Your task to perform on an android device: stop showing notifications on the lock screen Image 0: 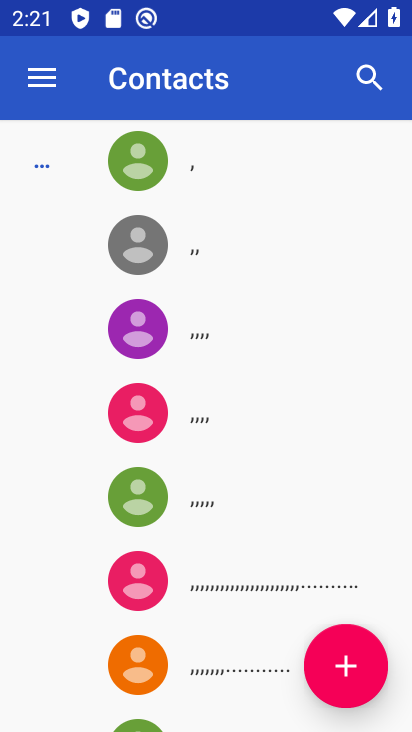
Step 0: press home button
Your task to perform on an android device: stop showing notifications on the lock screen Image 1: 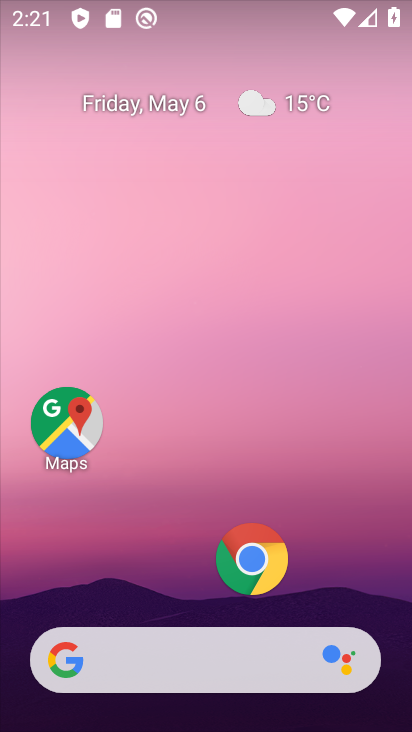
Step 1: drag from (191, 584) to (255, 10)
Your task to perform on an android device: stop showing notifications on the lock screen Image 2: 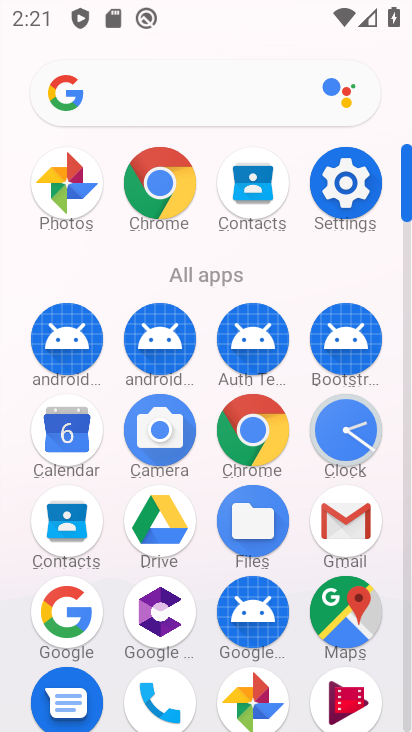
Step 2: click (338, 181)
Your task to perform on an android device: stop showing notifications on the lock screen Image 3: 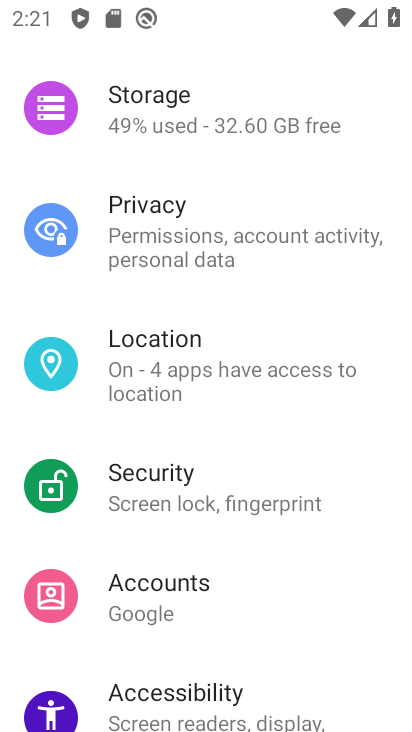
Step 3: drag from (197, 104) to (225, 667)
Your task to perform on an android device: stop showing notifications on the lock screen Image 4: 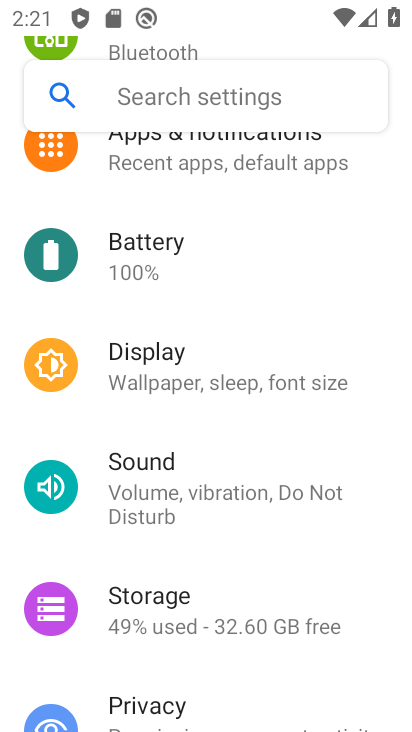
Step 4: click (207, 152)
Your task to perform on an android device: stop showing notifications on the lock screen Image 5: 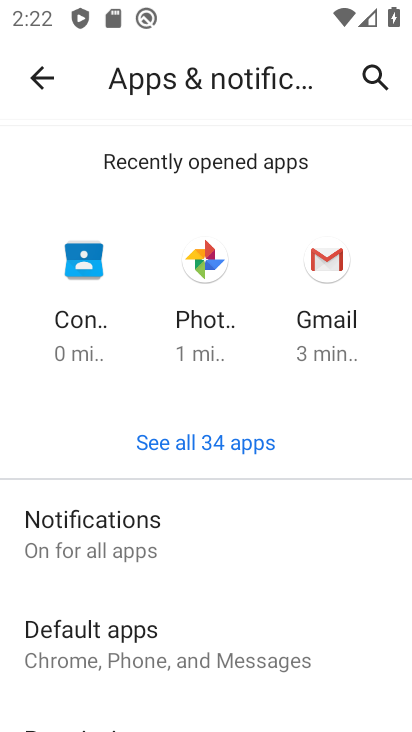
Step 5: click (159, 538)
Your task to perform on an android device: stop showing notifications on the lock screen Image 6: 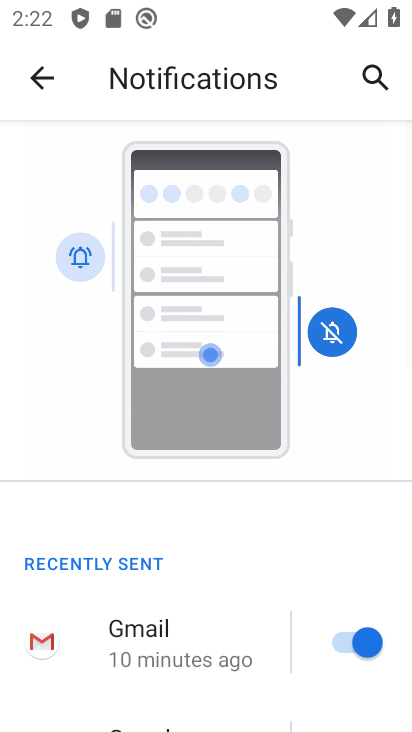
Step 6: drag from (250, 624) to (320, 150)
Your task to perform on an android device: stop showing notifications on the lock screen Image 7: 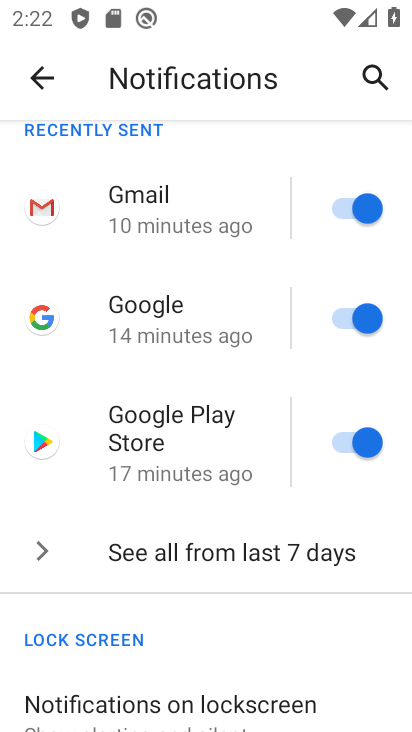
Step 7: click (195, 695)
Your task to perform on an android device: stop showing notifications on the lock screen Image 8: 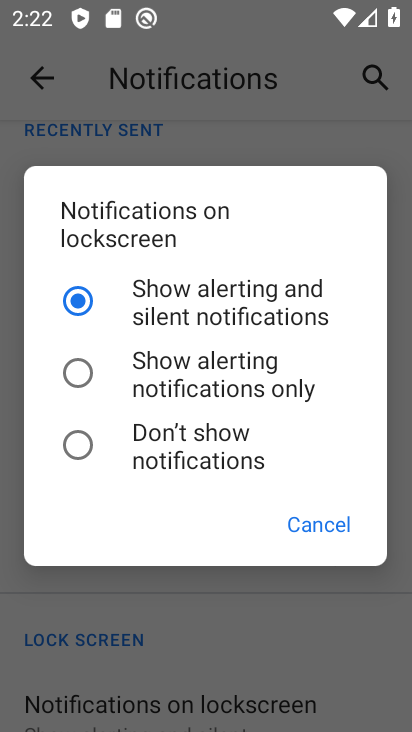
Step 8: click (70, 437)
Your task to perform on an android device: stop showing notifications on the lock screen Image 9: 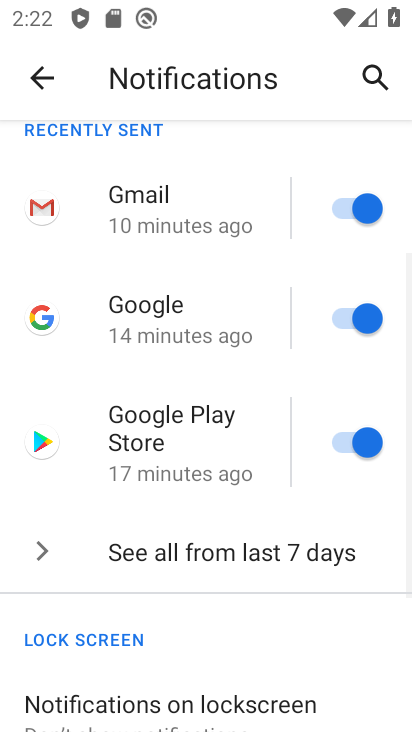
Step 9: task complete